Your task to perform on an android device: change the clock display to digital Image 0: 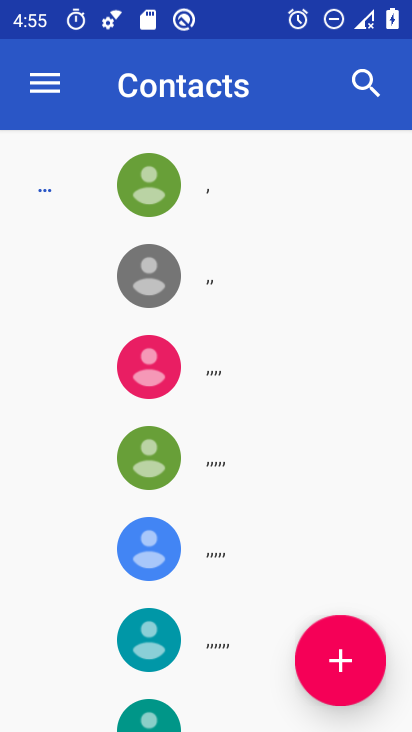
Step 0: press back button
Your task to perform on an android device: change the clock display to digital Image 1: 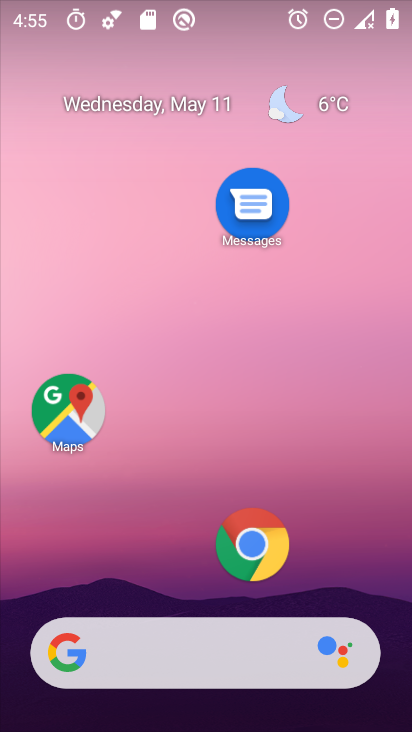
Step 1: drag from (148, 580) to (268, 103)
Your task to perform on an android device: change the clock display to digital Image 2: 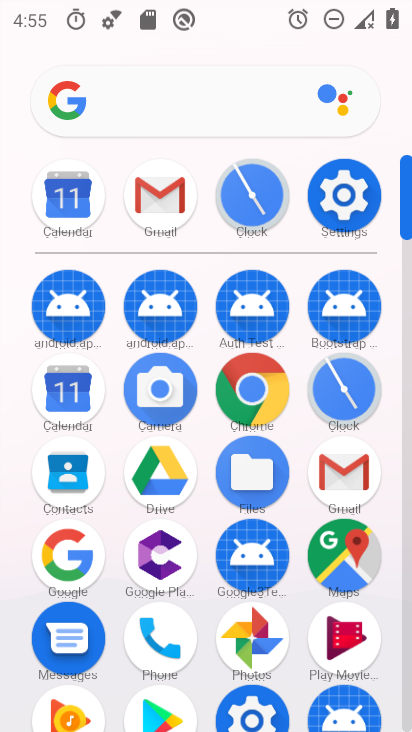
Step 2: click (344, 395)
Your task to perform on an android device: change the clock display to digital Image 3: 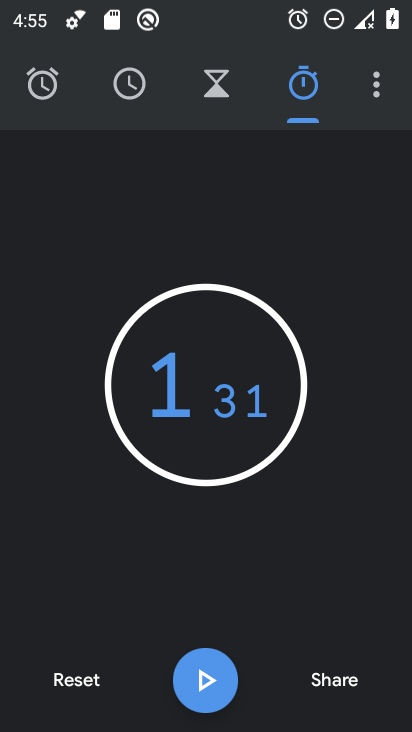
Step 3: click (373, 77)
Your task to perform on an android device: change the clock display to digital Image 4: 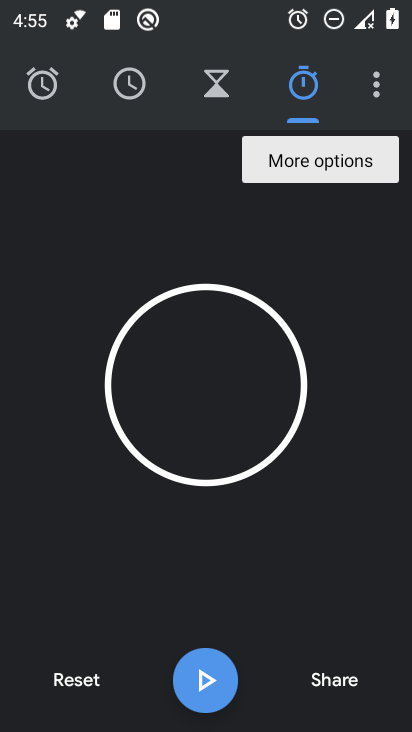
Step 4: click (376, 91)
Your task to perform on an android device: change the clock display to digital Image 5: 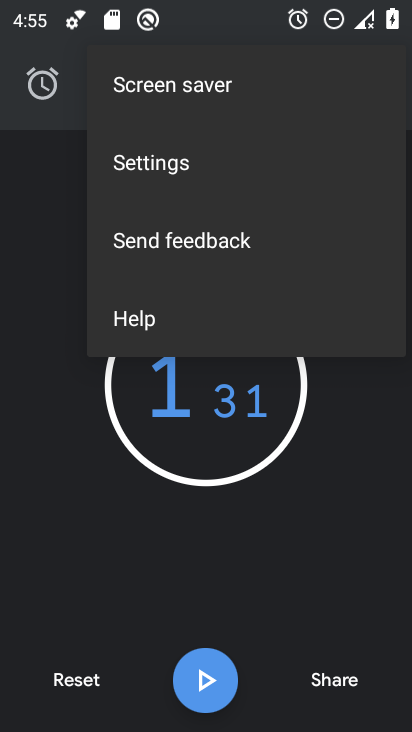
Step 5: click (217, 154)
Your task to perform on an android device: change the clock display to digital Image 6: 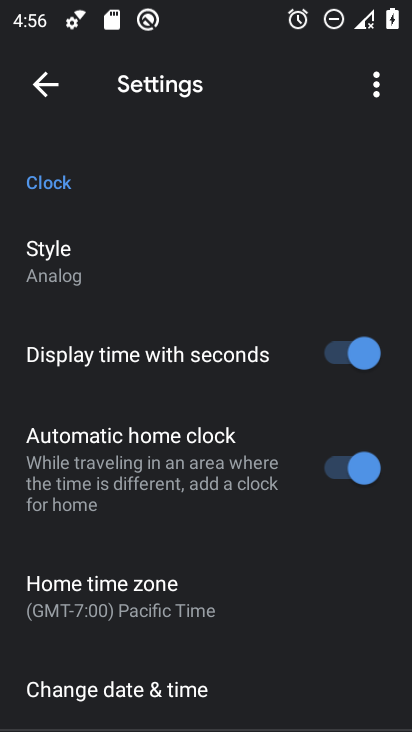
Step 6: click (115, 264)
Your task to perform on an android device: change the clock display to digital Image 7: 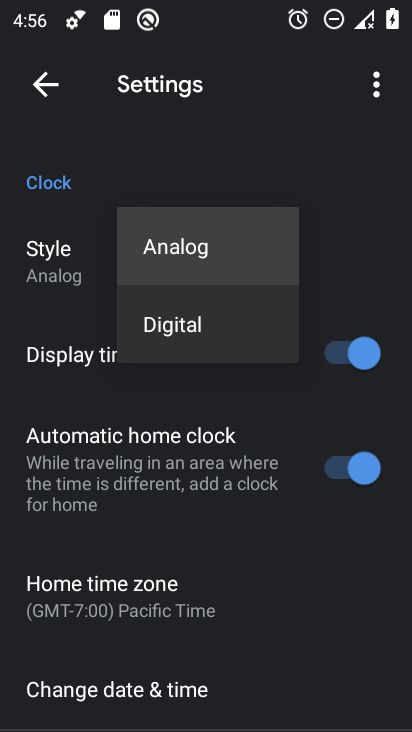
Step 7: click (206, 321)
Your task to perform on an android device: change the clock display to digital Image 8: 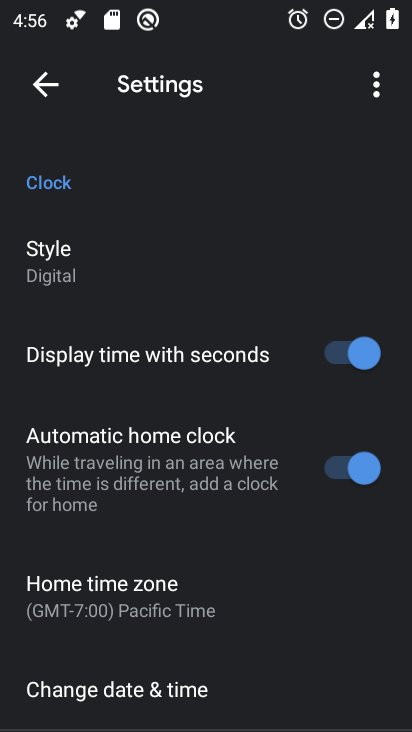
Step 8: task complete